Your task to perform on an android device: Open calendar and show me the first week of next month Image 0: 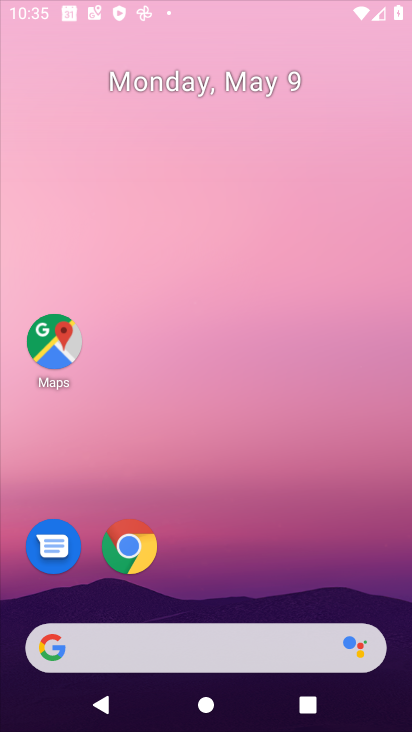
Step 0: click (138, 559)
Your task to perform on an android device: Open calendar and show me the first week of next month Image 1: 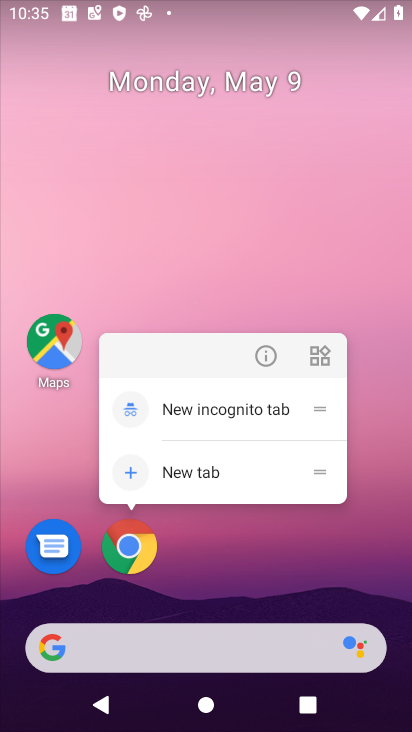
Step 1: click (170, 180)
Your task to perform on an android device: Open calendar and show me the first week of next month Image 2: 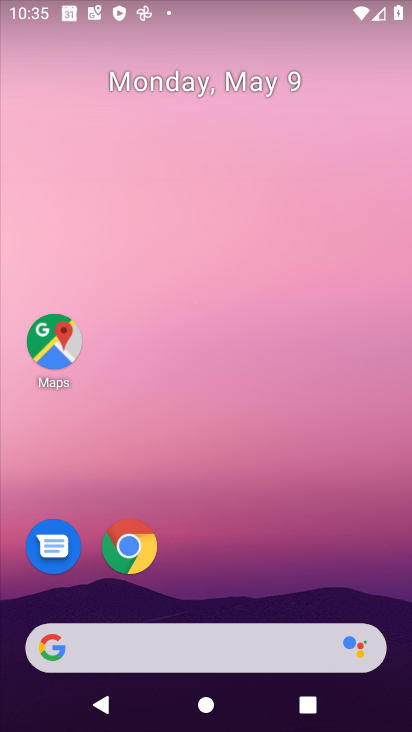
Step 2: drag from (248, 710) to (174, 29)
Your task to perform on an android device: Open calendar and show me the first week of next month Image 3: 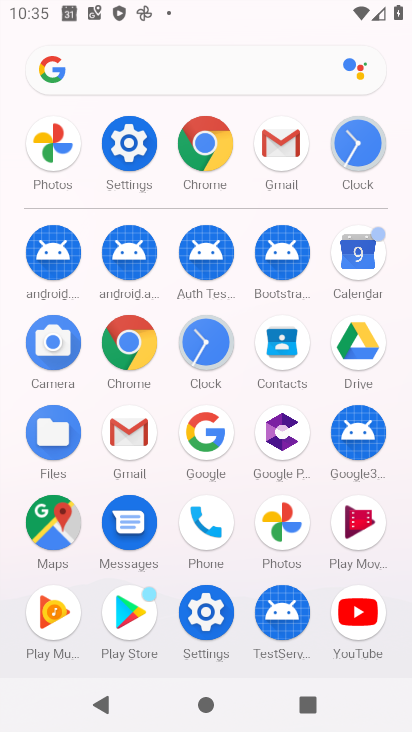
Step 3: click (364, 260)
Your task to perform on an android device: Open calendar and show me the first week of next month Image 4: 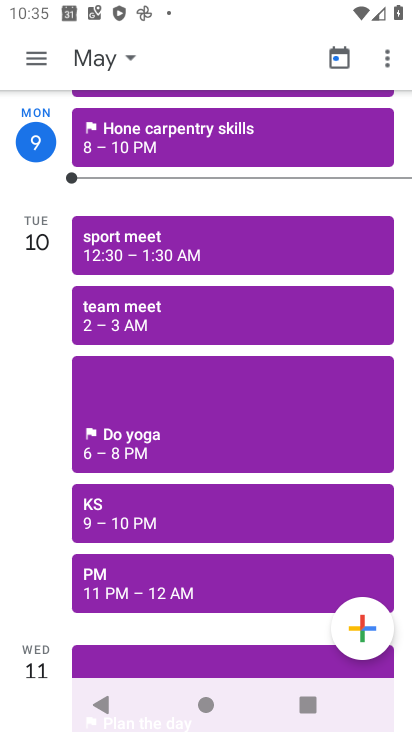
Step 4: click (93, 60)
Your task to perform on an android device: Open calendar and show me the first week of next month Image 5: 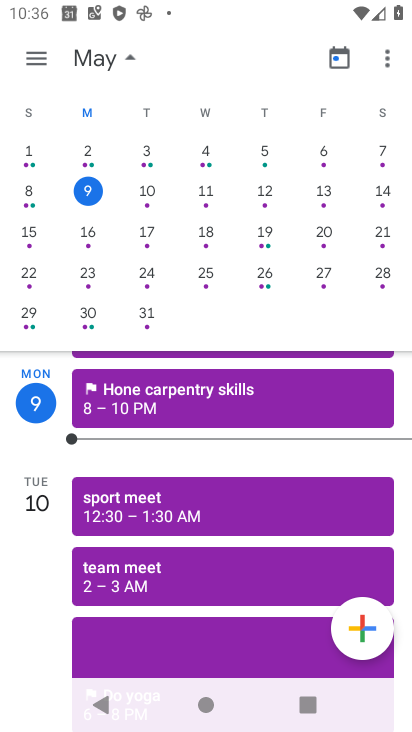
Step 5: drag from (382, 195) to (2, 193)
Your task to perform on an android device: Open calendar and show me the first week of next month Image 6: 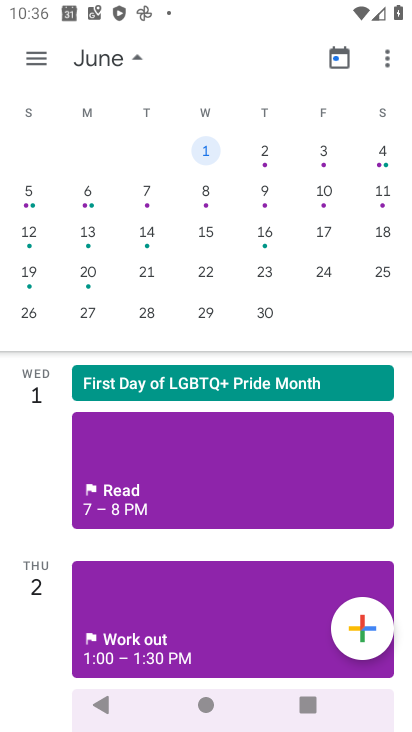
Step 6: click (209, 151)
Your task to perform on an android device: Open calendar and show me the first week of next month Image 7: 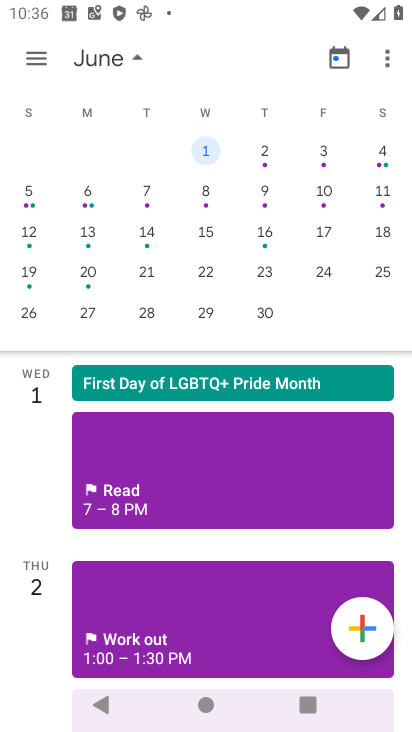
Step 7: task complete